Your task to perform on an android device: Show me the alarms in the clock app Image 0: 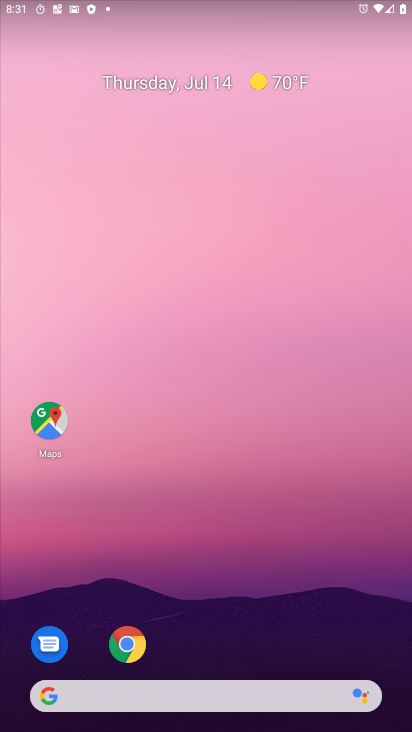
Step 0: press home button
Your task to perform on an android device: Show me the alarms in the clock app Image 1: 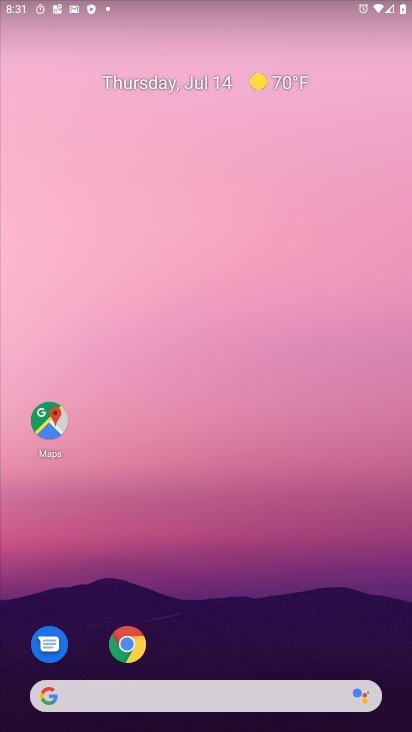
Step 1: drag from (182, 701) to (320, 128)
Your task to perform on an android device: Show me the alarms in the clock app Image 2: 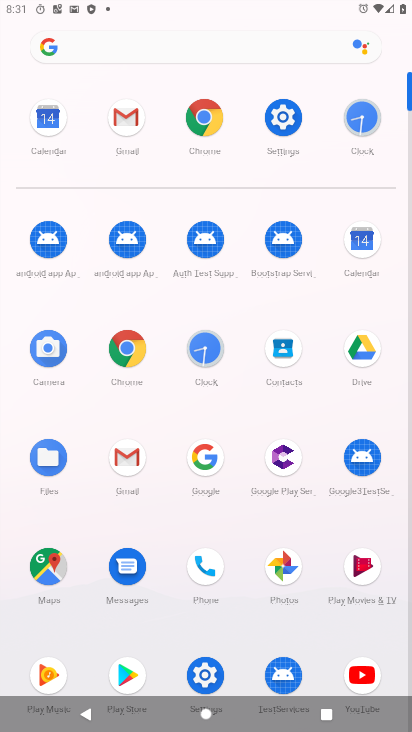
Step 2: click (365, 128)
Your task to perform on an android device: Show me the alarms in the clock app Image 3: 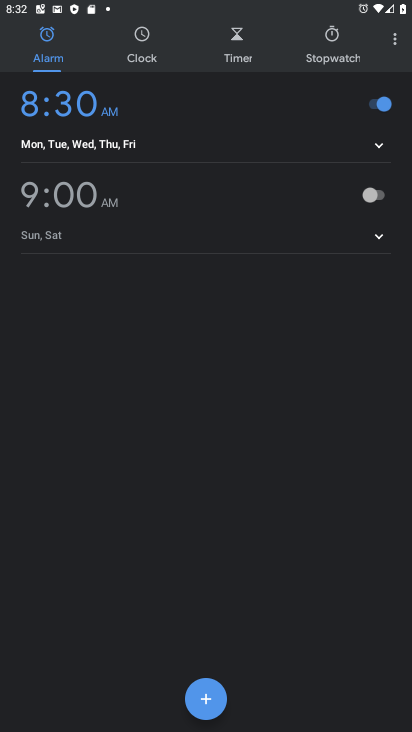
Step 3: task complete